Your task to perform on an android device: turn on javascript in the chrome app Image 0: 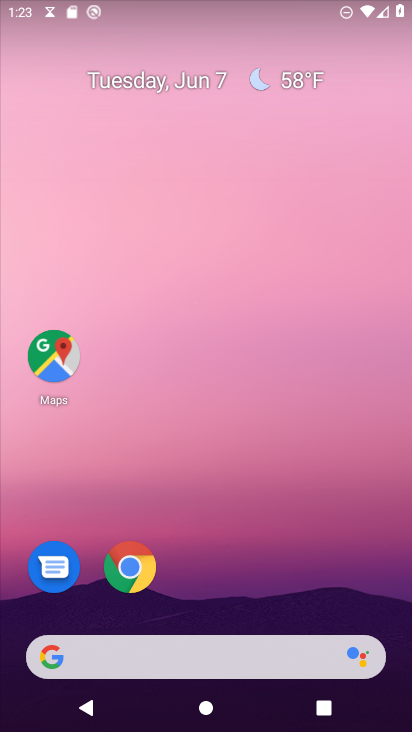
Step 0: drag from (395, 671) to (369, 113)
Your task to perform on an android device: turn on javascript in the chrome app Image 1: 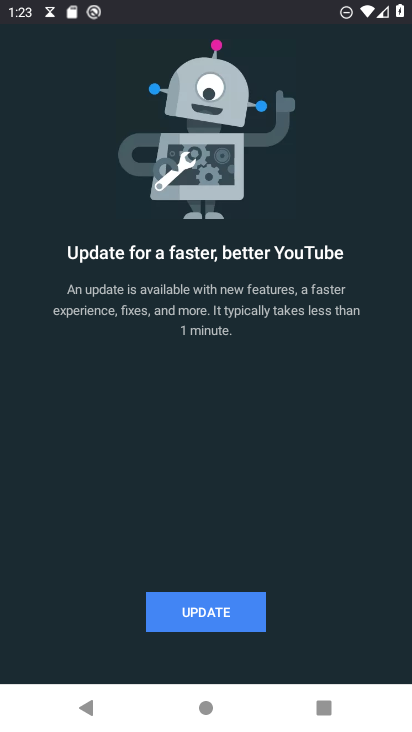
Step 1: press back button
Your task to perform on an android device: turn on javascript in the chrome app Image 2: 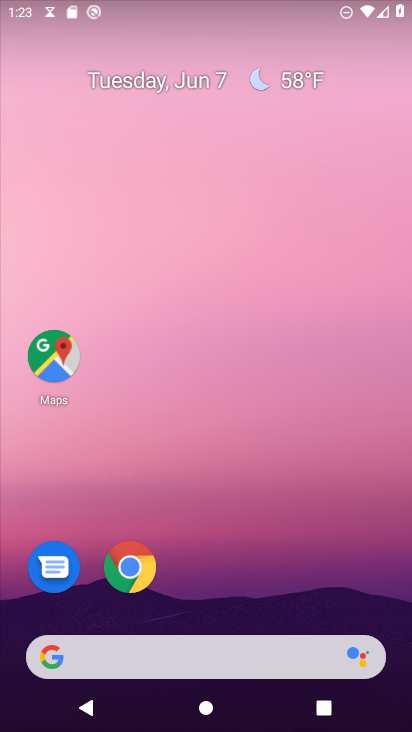
Step 2: click (114, 580)
Your task to perform on an android device: turn on javascript in the chrome app Image 3: 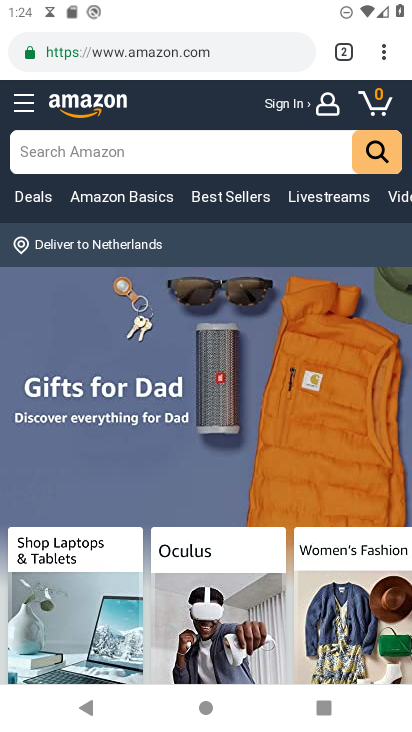
Step 3: click (379, 49)
Your task to perform on an android device: turn on javascript in the chrome app Image 4: 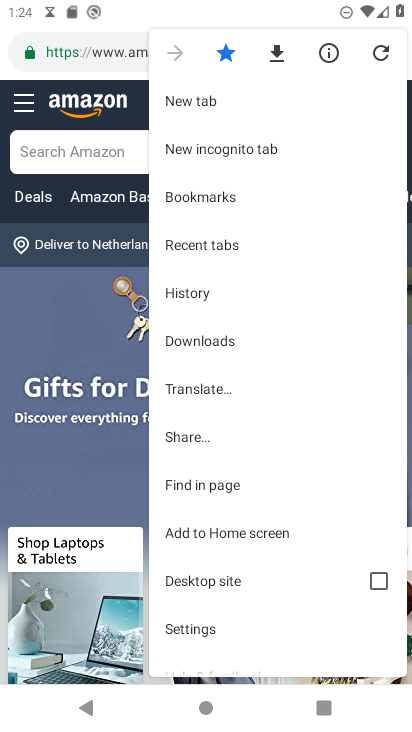
Step 4: click (188, 627)
Your task to perform on an android device: turn on javascript in the chrome app Image 5: 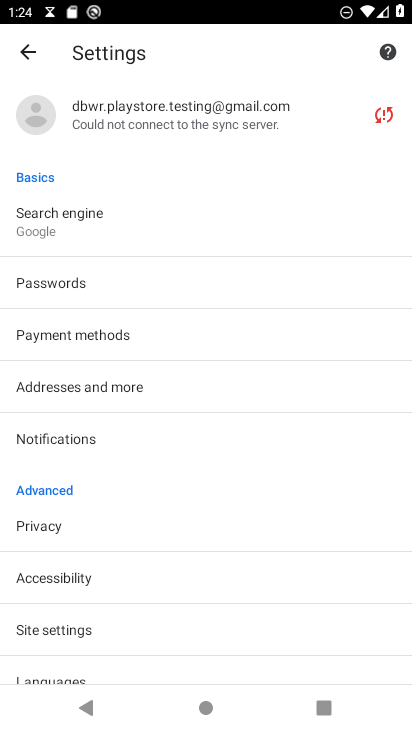
Step 5: drag from (192, 642) to (202, 248)
Your task to perform on an android device: turn on javascript in the chrome app Image 6: 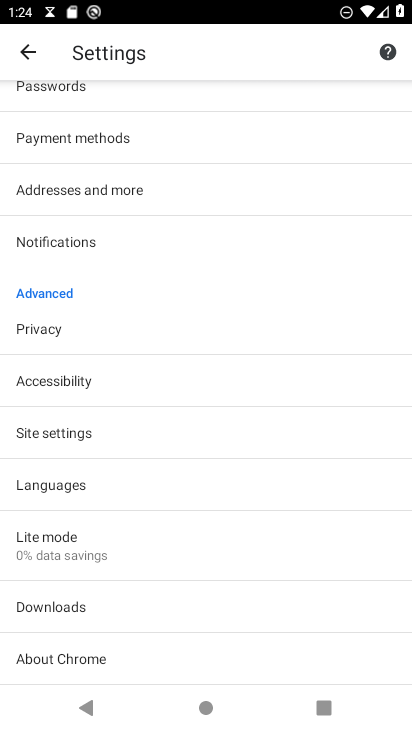
Step 6: drag from (155, 629) to (184, 231)
Your task to perform on an android device: turn on javascript in the chrome app Image 7: 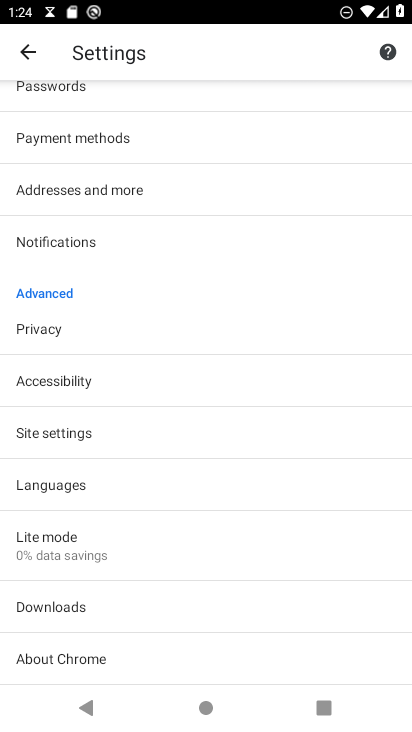
Step 7: drag from (165, 272) to (167, 591)
Your task to perform on an android device: turn on javascript in the chrome app Image 8: 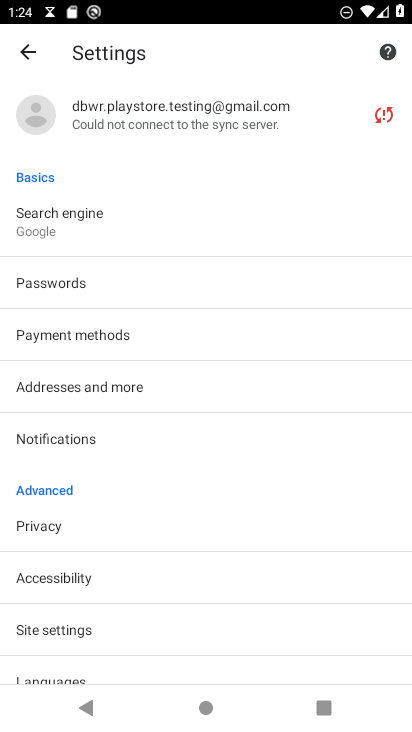
Step 8: drag from (179, 640) to (179, 336)
Your task to perform on an android device: turn on javascript in the chrome app Image 9: 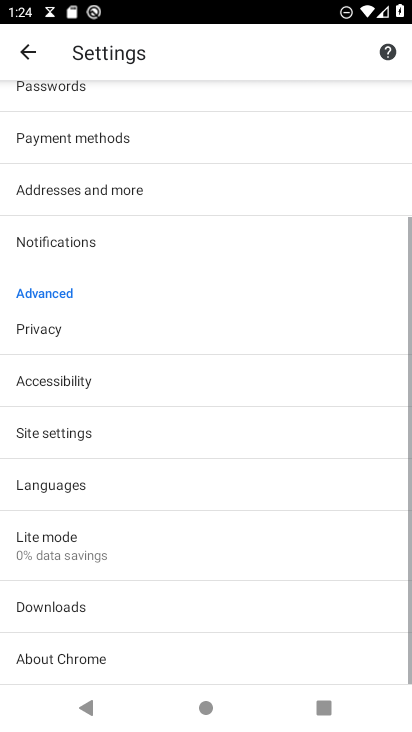
Step 9: click (35, 428)
Your task to perform on an android device: turn on javascript in the chrome app Image 10: 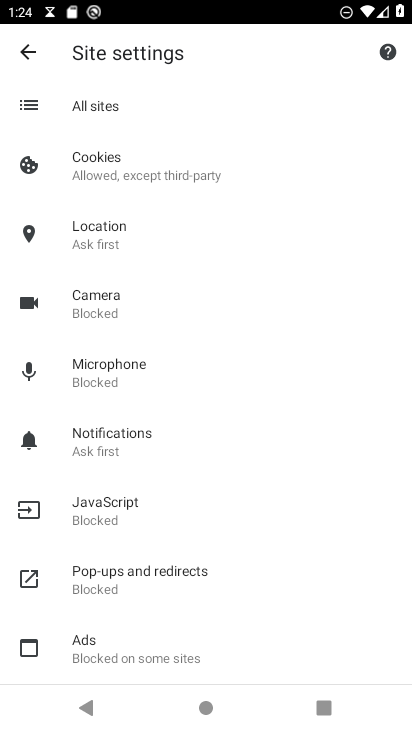
Step 10: click (101, 502)
Your task to perform on an android device: turn on javascript in the chrome app Image 11: 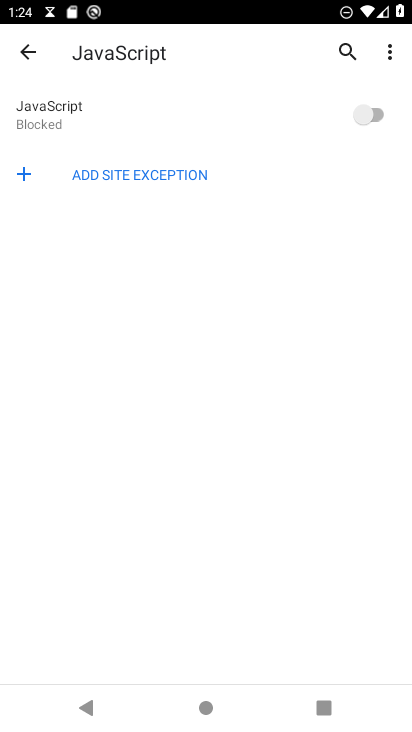
Step 11: click (371, 113)
Your task to perform on an android device: turn on javascript in the chrome app Image 12: 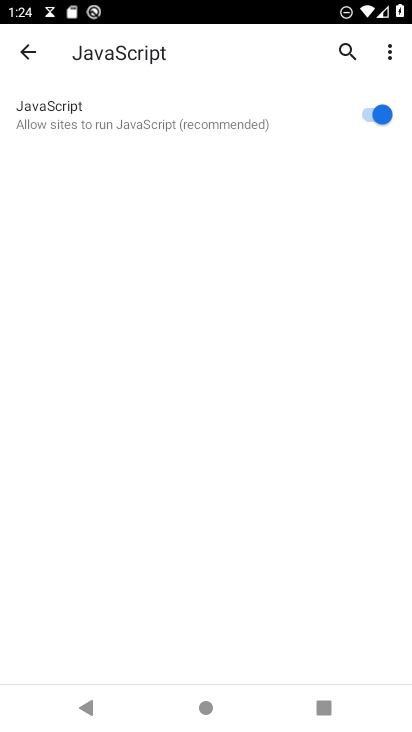
Step 12: task complete